Your task to perform on an android device: Go to CNN.com Image 0: 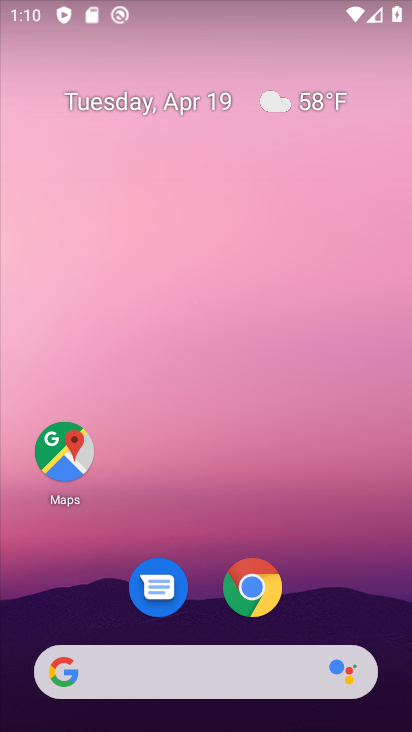
Step 0: click (252, 599)
Your task to perform on an android device: Go to CNN.com Image 1: 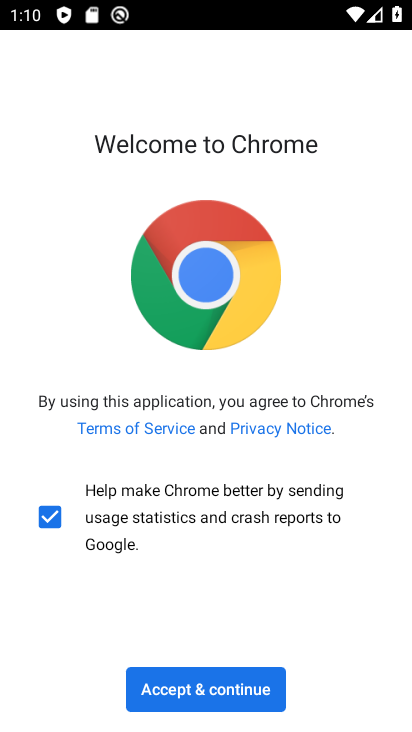
Step 1: click (198, 679)
Your task to perform on an android device: Go to CNN.com Image 2: 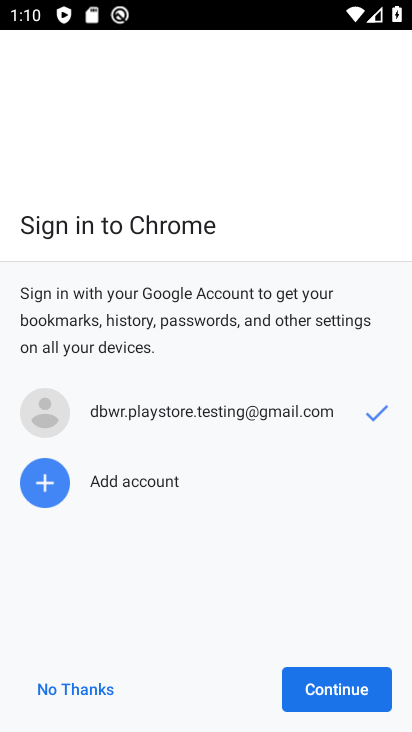
Step 2: click (302, 690)
Your task to perform on an android device: Go to CNN.com Image 3: 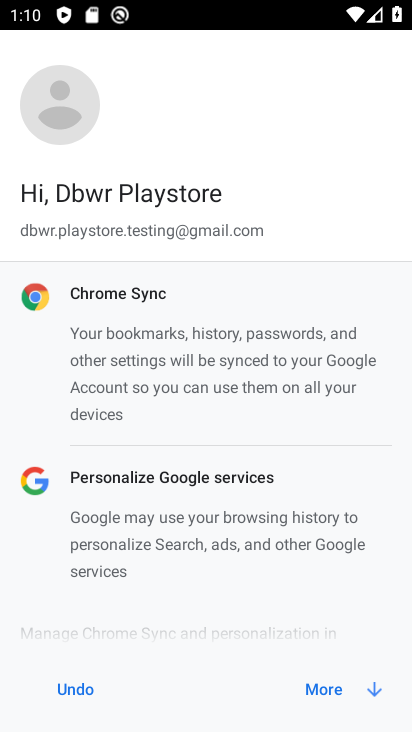
Step 3: click (302, 690)
Your task to perform on an android device: Go to CNN.com Image 4: 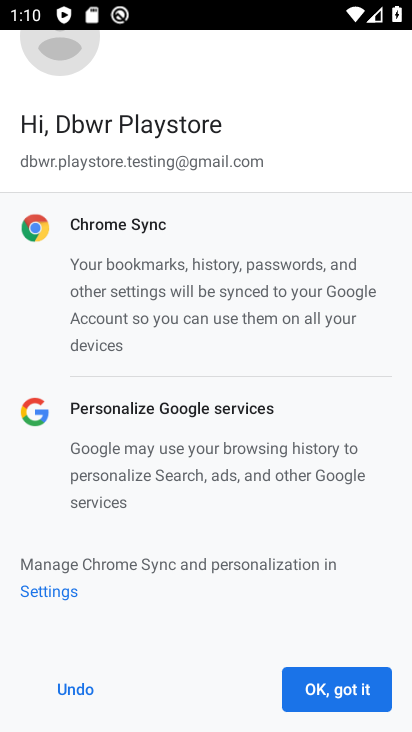
Step 4: click (302, 690)
Your task to perform on an android device: Go to CNN.com Image 5: 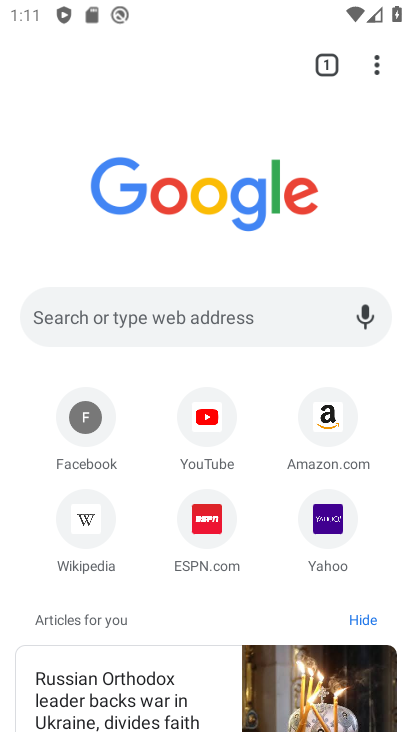
Step 5: click (220, 315)
Your task to perform on an android device: Go to CNN.com Image 6: 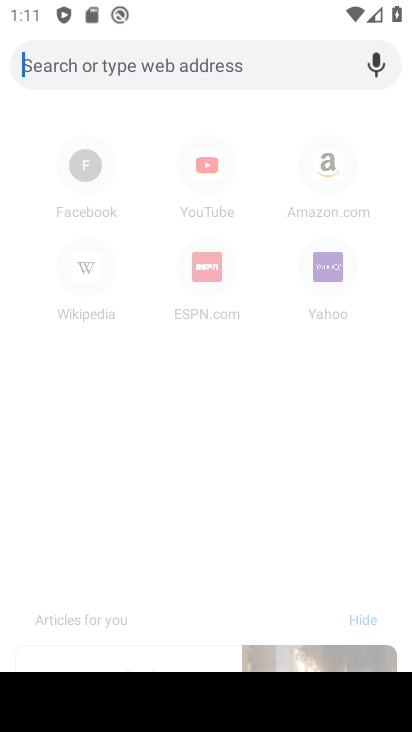
Step 6: type "cnn.com"
Your task to perform on an android device: Go to CNN.com Image 7: 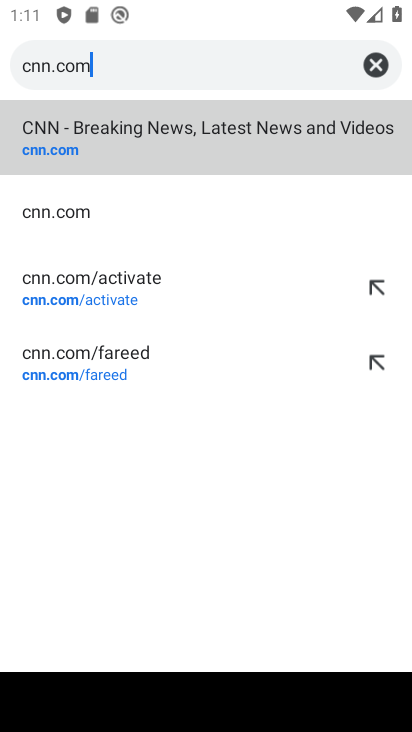
Step 7: click (60, 122)
Your task to perform on an android device: Go to CNN.com Image 8: 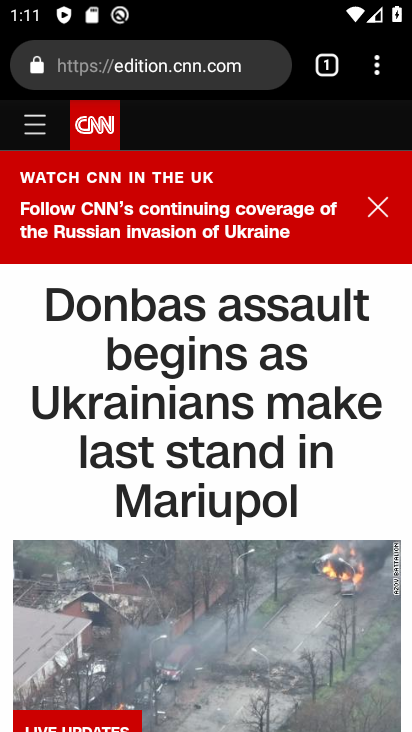
Step 8: task complete